Your task to perform on an android device: turn pop-ups on in chrome Image 0: 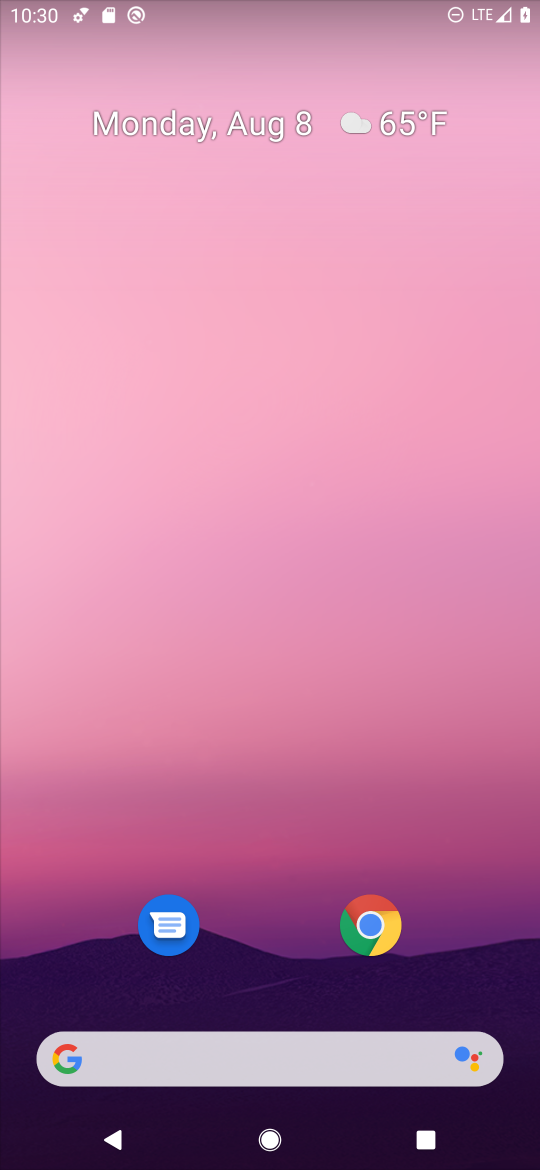
Step 0: drag from (272, 958) to (281, 165)
Your task to perform on an android device: turn pop-ups on in chrome Image 1: 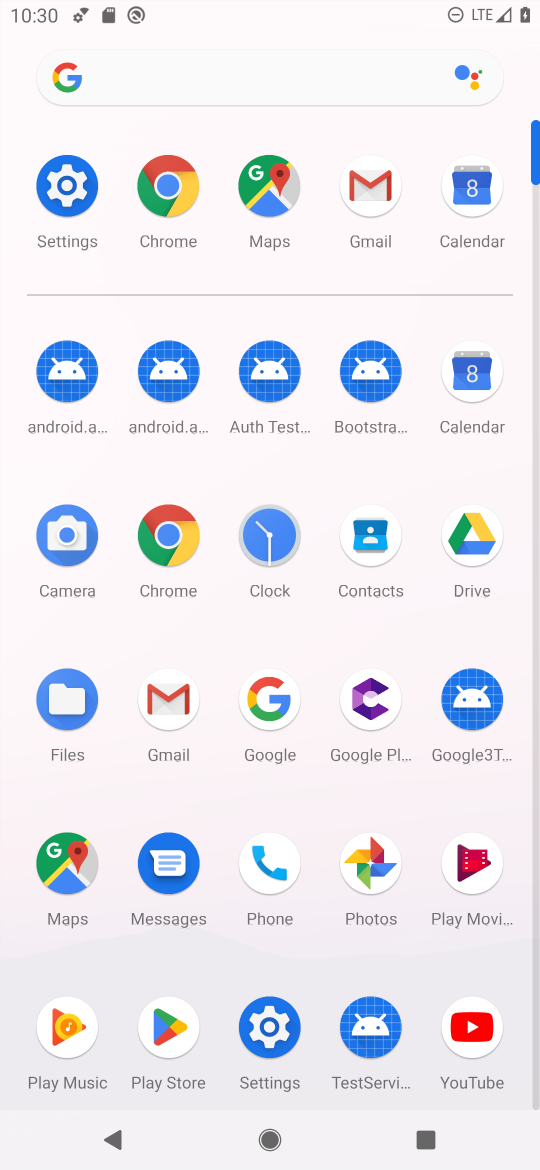
Step 1: click (159, 527)
Your task to perform on an android device: turn pop-ups on in chrome Image 2: 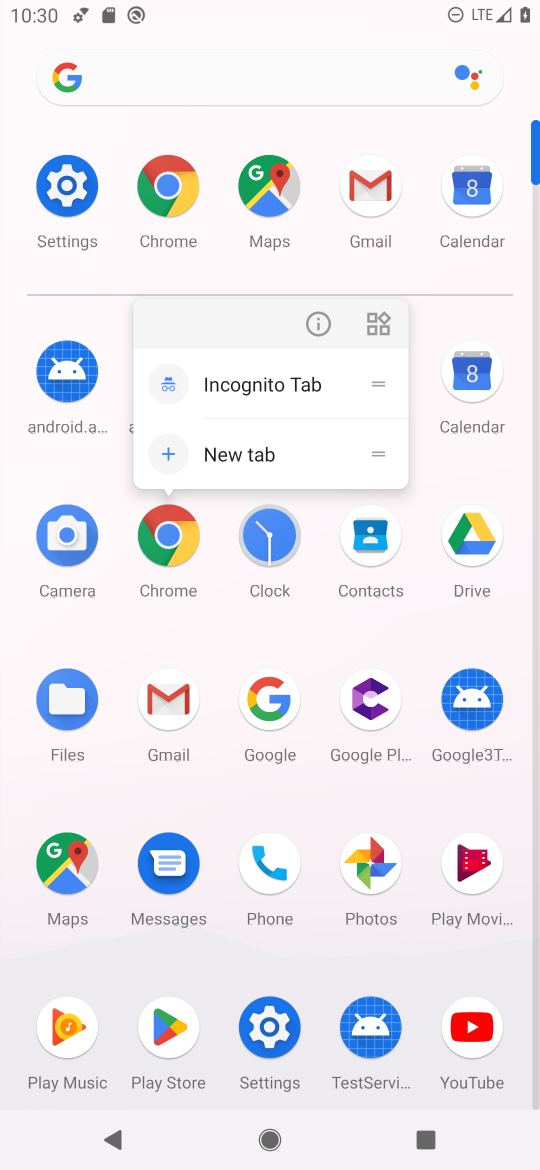
Step 2: click (171, 528)
Your task to perform on an android device: turn pop-ups on in chrome Image 3: 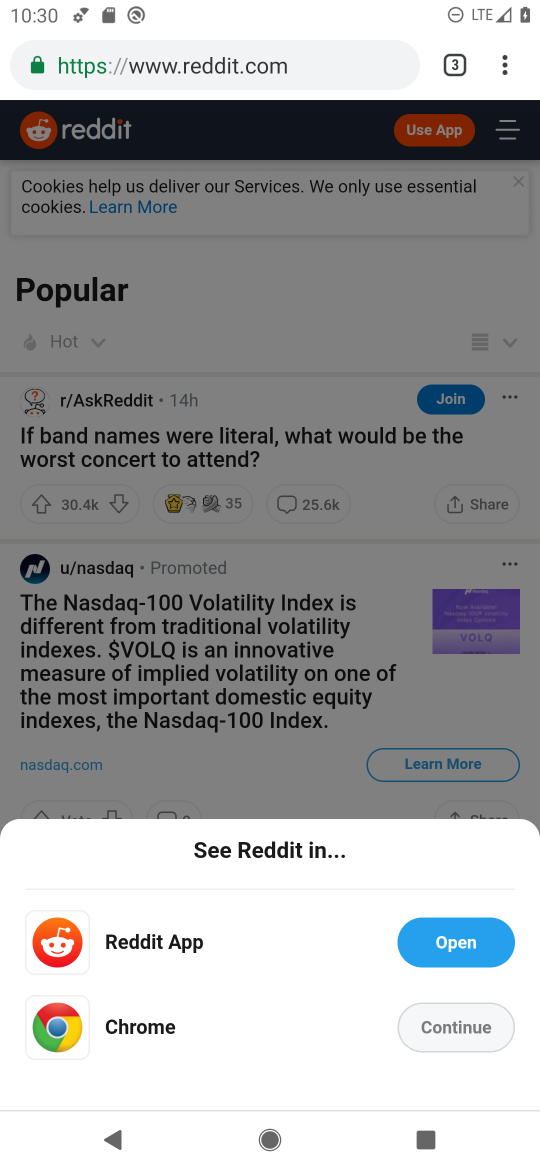
Step 3: drag from (516, 67) to (303, 854)
Your task to perform on an android device: turn pop-ups on in chrome Image 4: 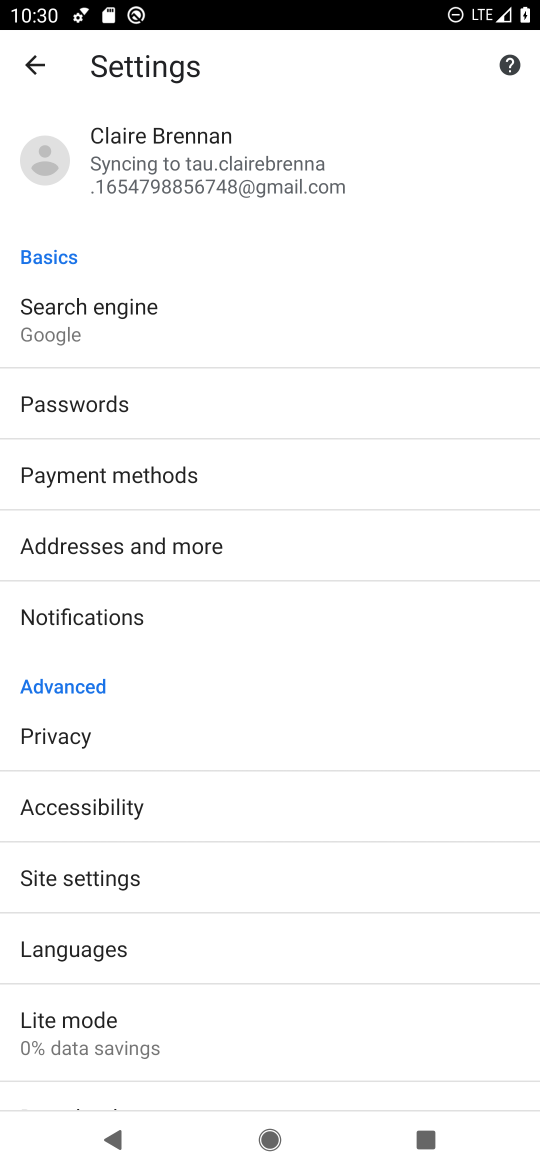
Step 4: click (74, 872)
Your task to perform on an android device: turn pop-ups on in chrome Image 5: 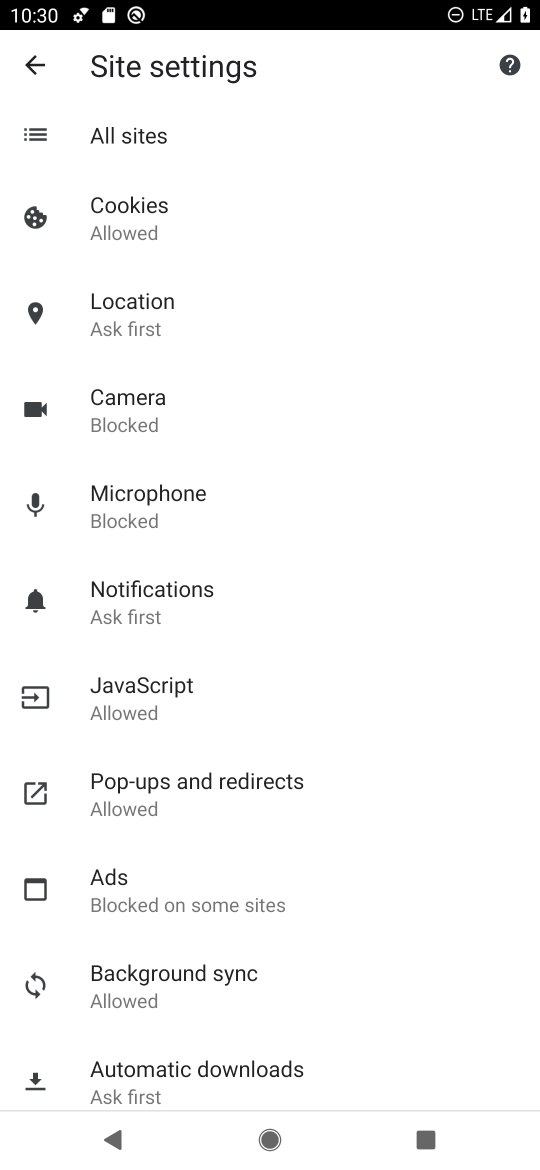
Step 5: click (249, 776)
Your task to perform on an android device: turn pop-ups on in chrome Image 6: 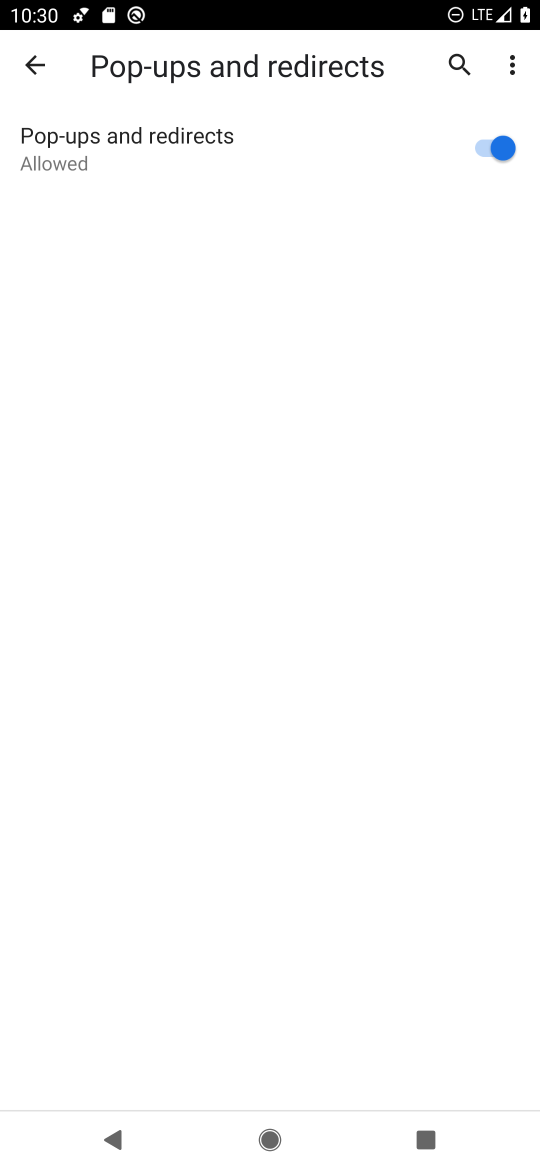
Step 6: task complete